Your task to perform on an android device: What's the time? Image 0: 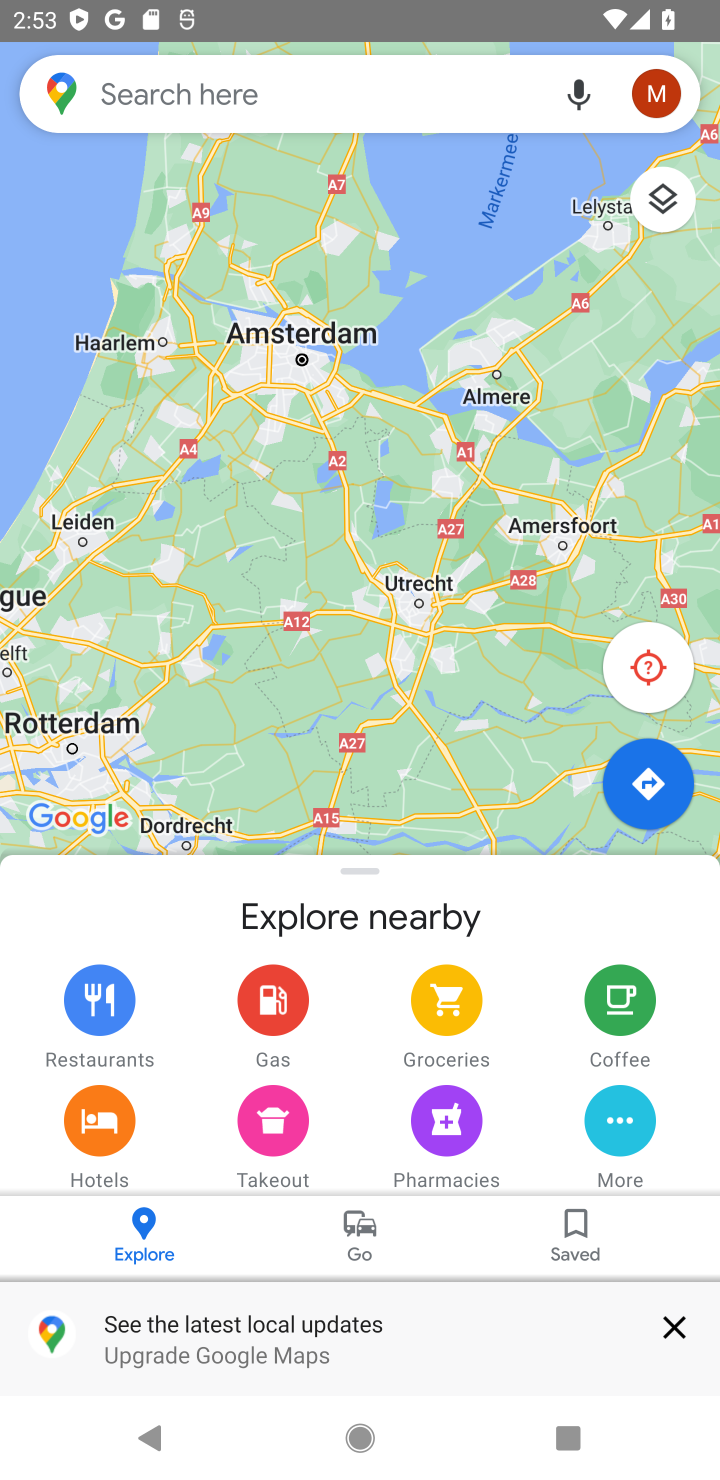
Step 0: press home button
Your task to perform on an android device: What's the time? Image 1: 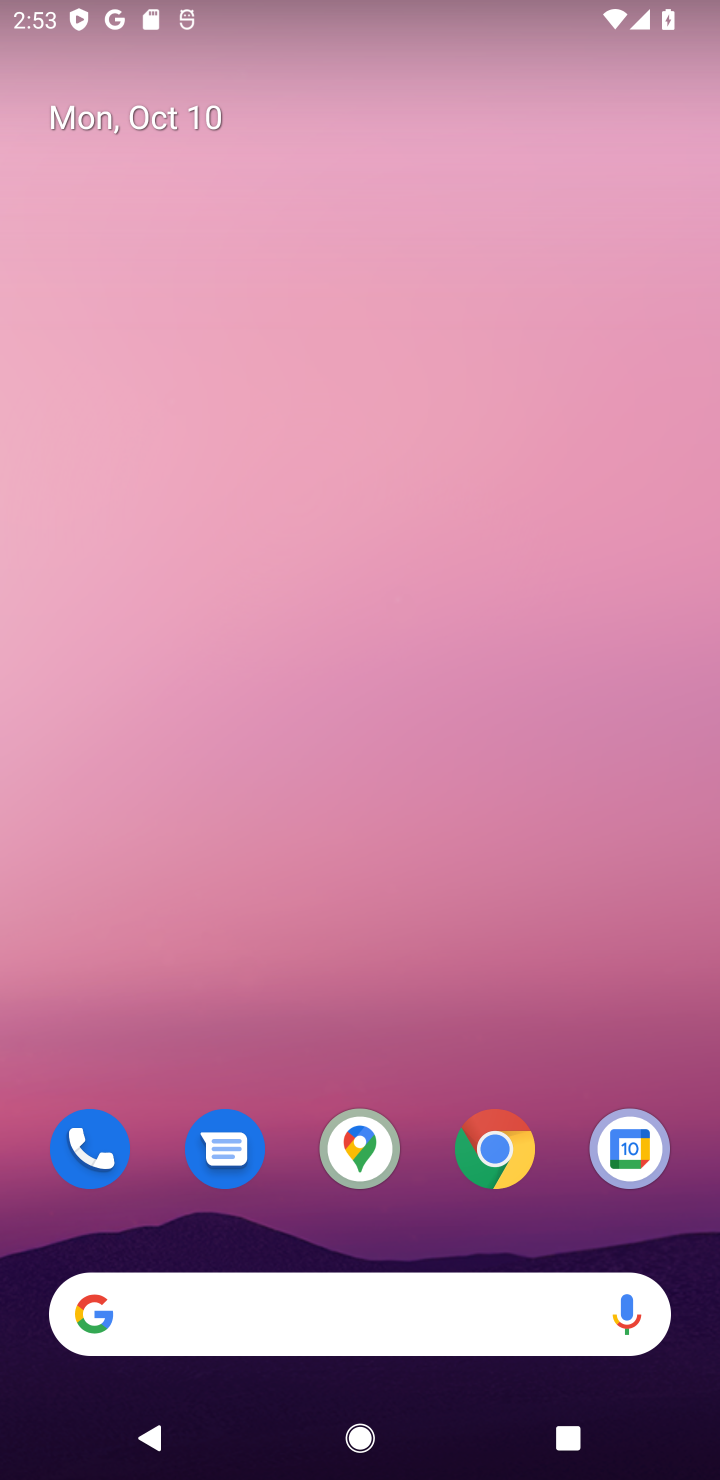
Step 1: drag from (291, 1240) to (326, 7)
Your task to perform on an android device: What's the time? Image 2: 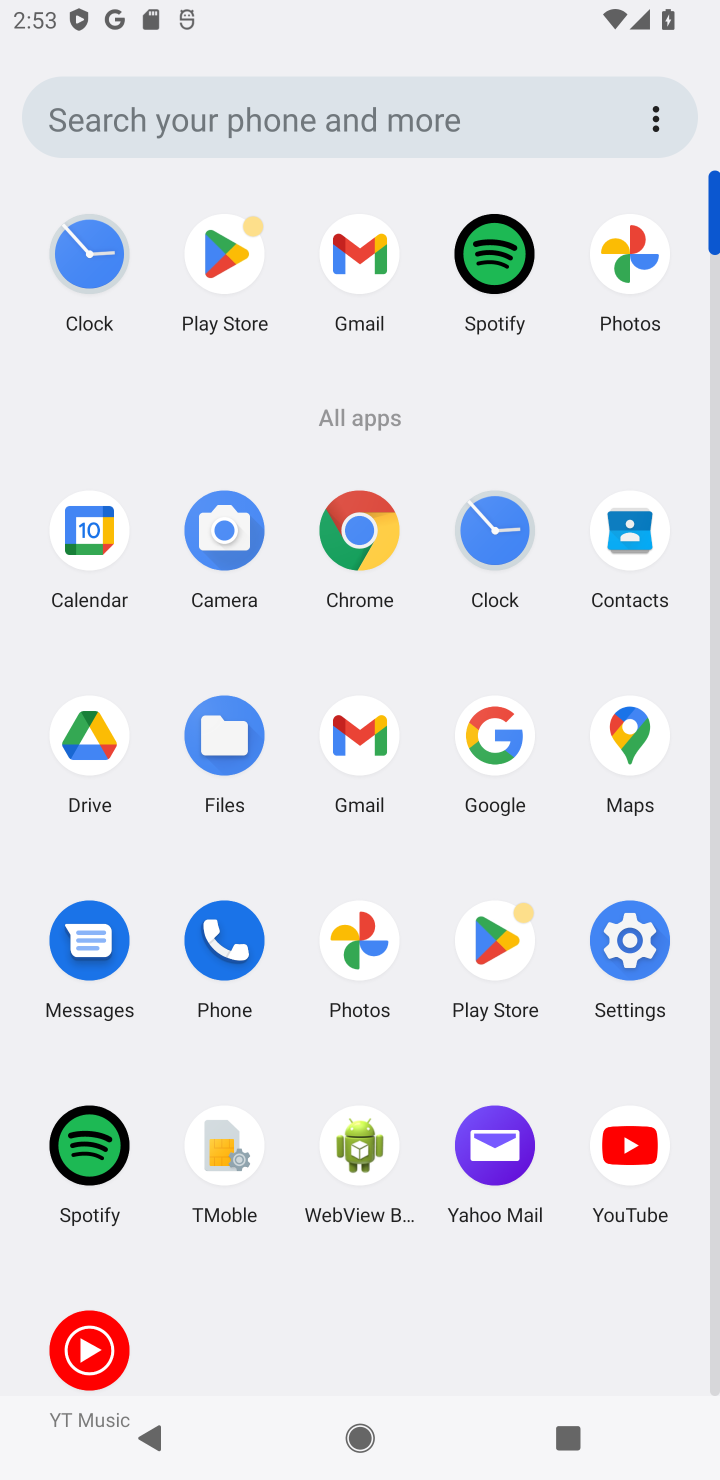
Step 2: click (468, 529)
Your task to perform on an android device: What's the time? Image 3: 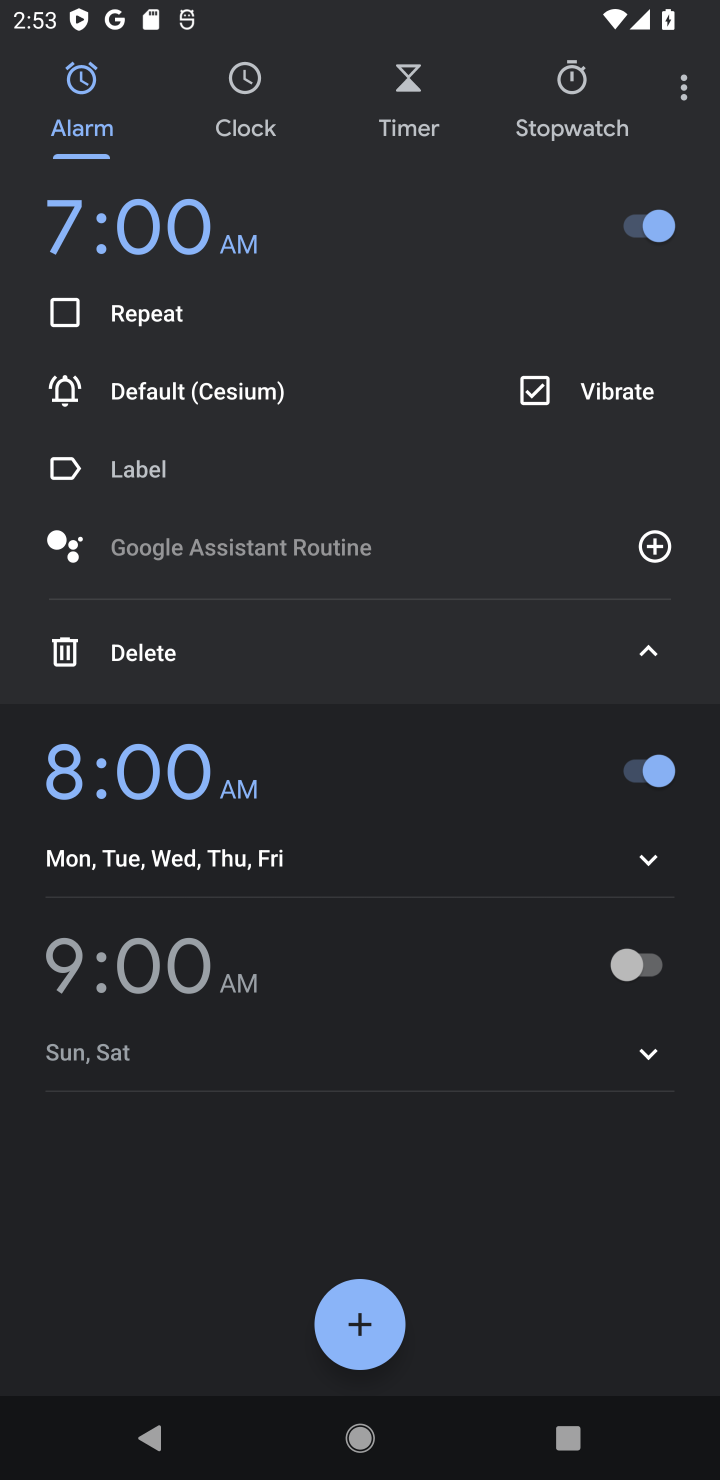
Step 3: click (280, 116)
Your task to perform on an android device: What's the time? Image 4: 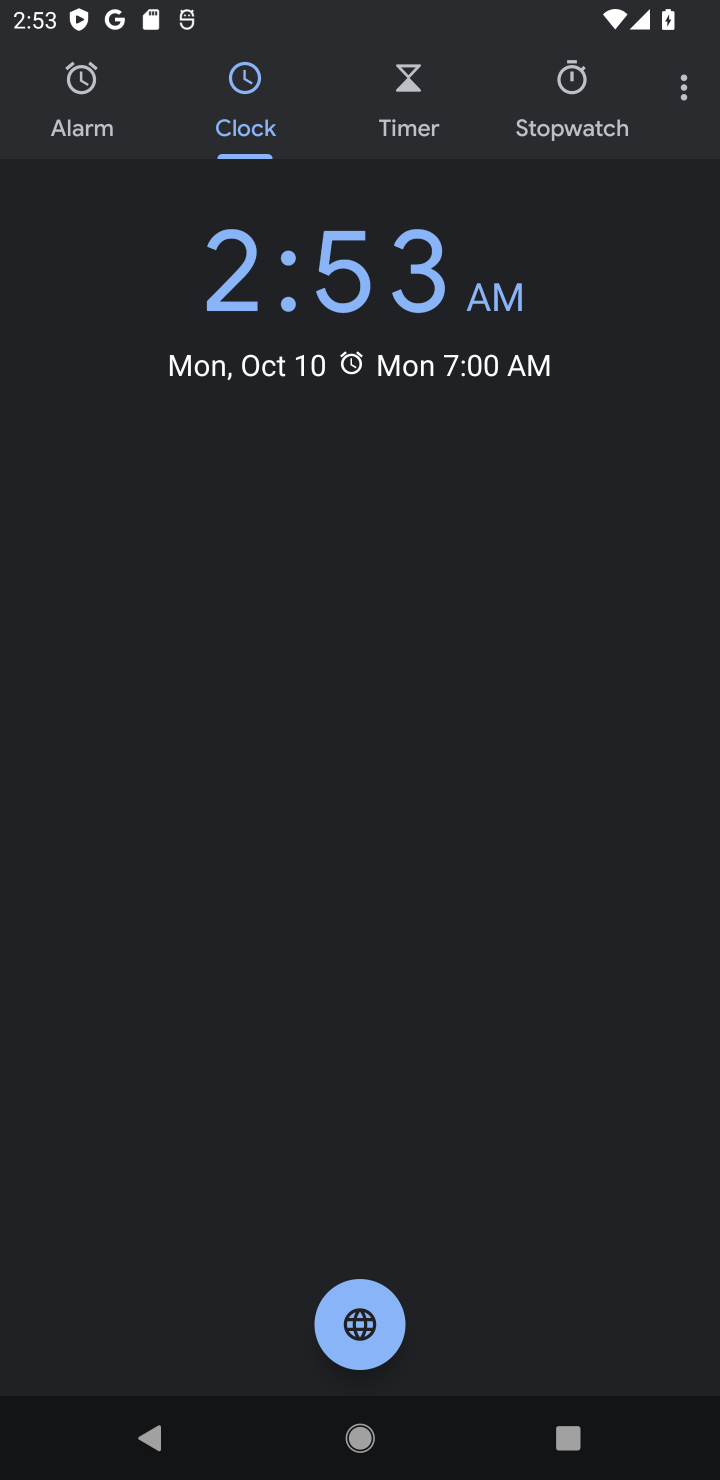
Step 4: task complete